Your task to perform on an android device: Open accessibility settings Image 0: 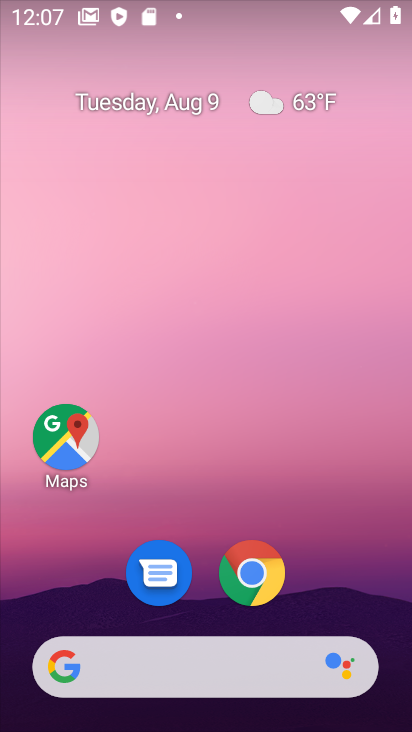
Step 0: drag from (205, 655) to (231, 204)
Your task to perform on an android device: Open accessibility settings Image 1: 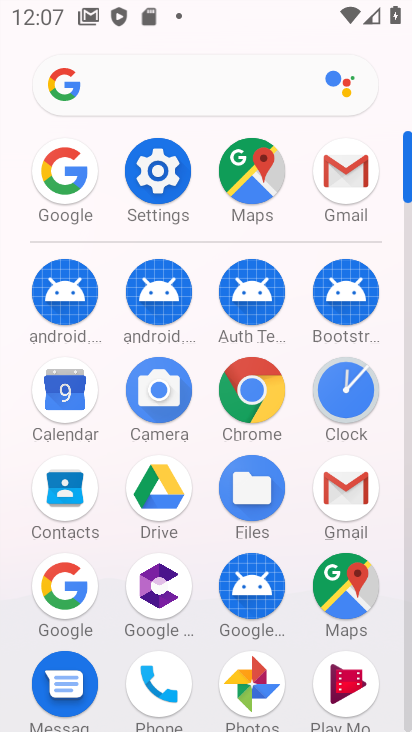
Step 1: click (147, 177)
Your task to perform on an android device: Open accessibility settings Image 2: 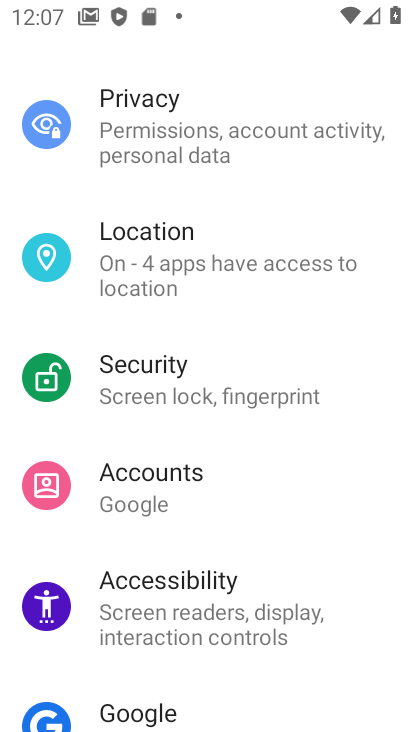
Step 2: click (165, 606)
Your task to perform on an android device: Open accessibility settings Image 3: 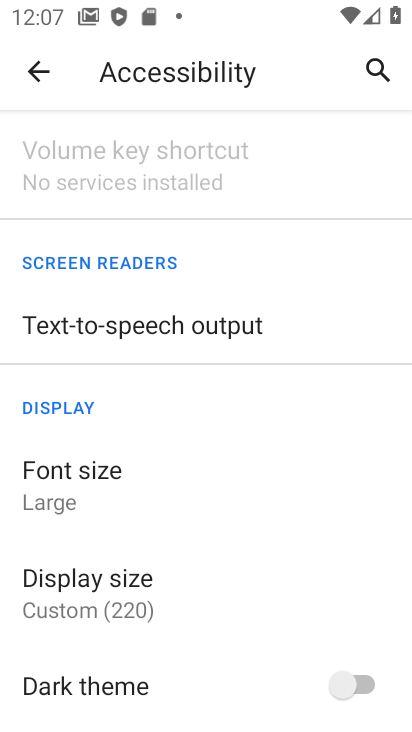
Step 3: task complete